Your task to perform on an android device: turn on airplane mode Image 0: 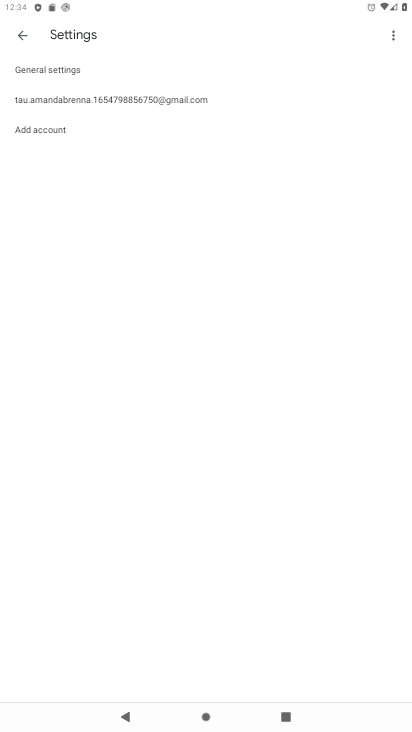
Step 0: press home button
Your task to perform on an android device: turn on airplane mode Image 1: 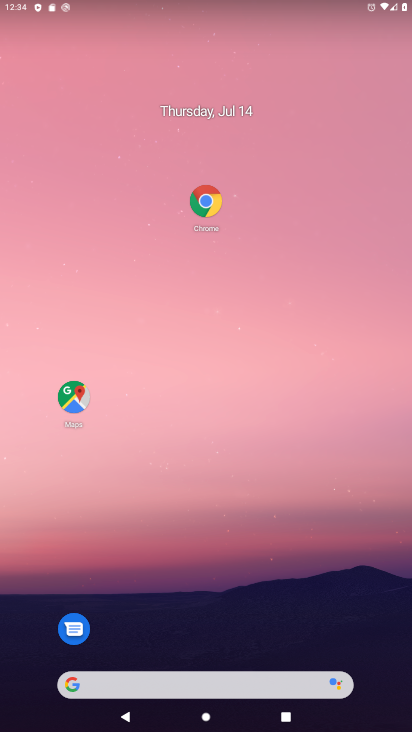
Step 1: drag from (197, 598) to (154, 0)
Your task to perform on an android device: turn on airplane mode Image 2: 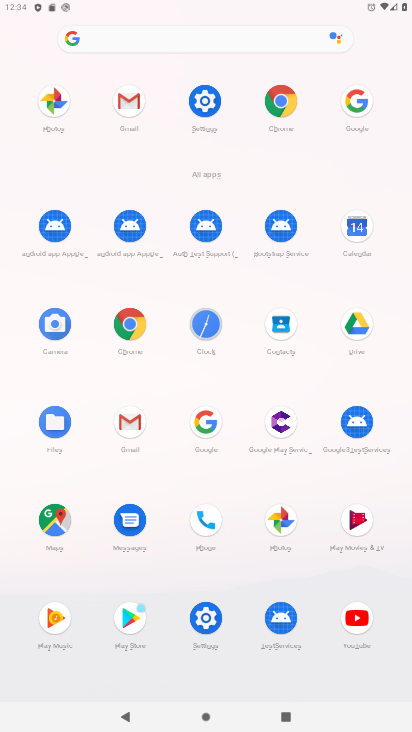
Step 2: click (204, 146)
Your task to perform on an android device: turn on airplane mode Image 3: 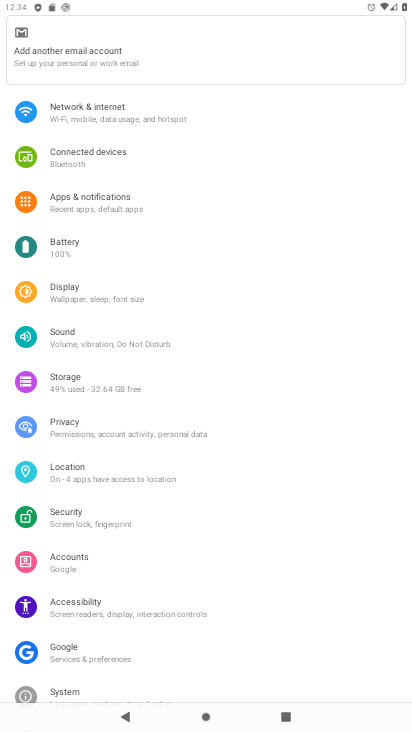
Step 3: drag from (204, 146) to (215, 261)
Your task to perform on an android device: turn on airplane mode Image 4: 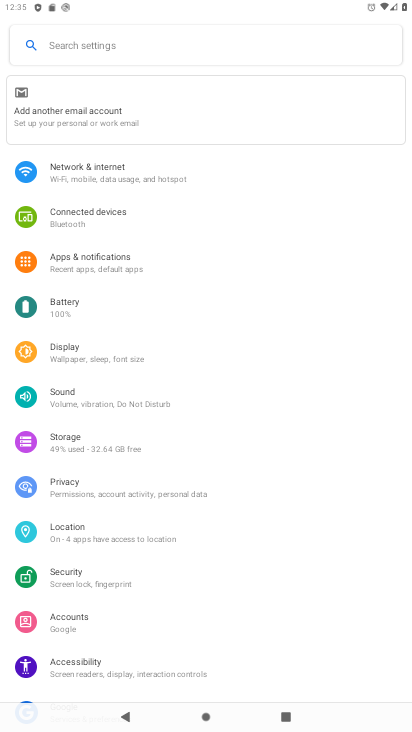
Step 4: click (136, 173)
Your task to perform on an android device: turn on airplane mode Image 5: 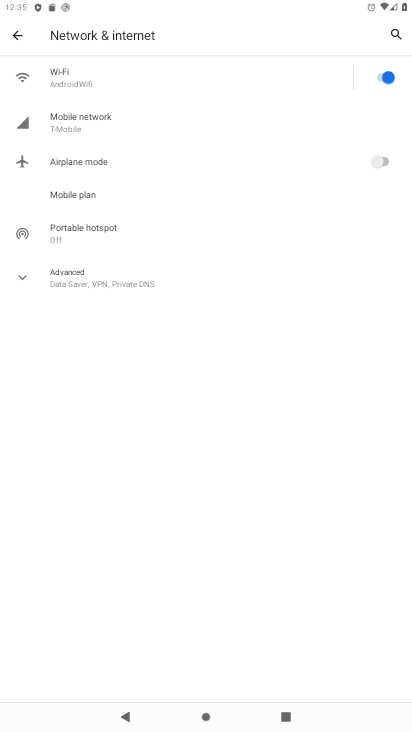
Step 5: click (118, 154)
Your task to perform on an android device: turn on airplane mode Image 6: 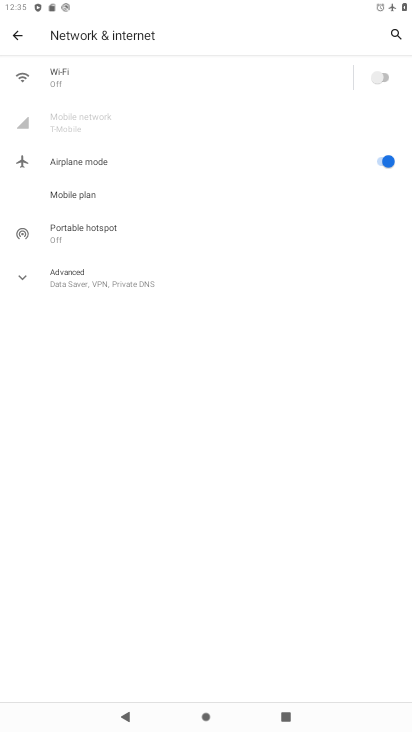
Step 6: task complete